Your task to perform on an android device: Go to Android settings Image 0: 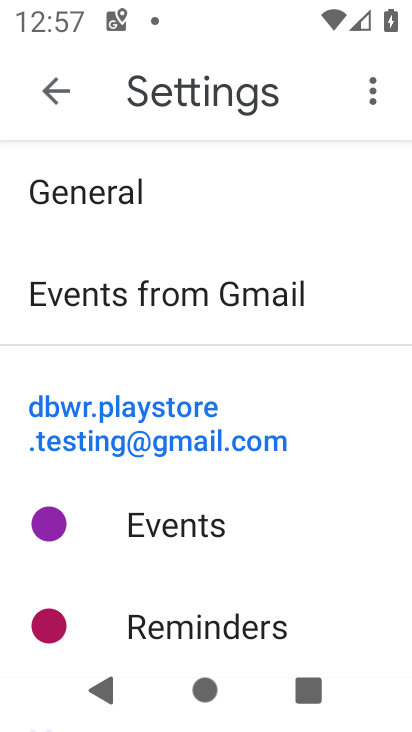
Step 0: press home button
Your task to perform on an android device: Go to Android settings Image 1: 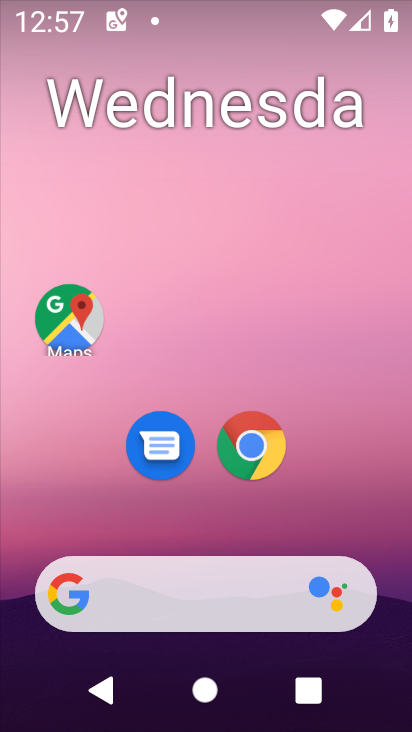
Step 1: drag from (335, 522) to (338, 0)
Your task to perform on an android device: Go to Android settings Image 2: 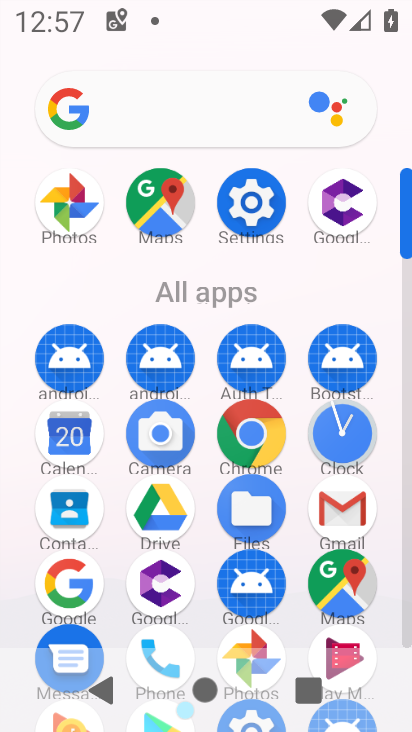
Step 2: drag from (299, 540) to (308, 54)
Your task to perform on an android device: Go to Android settings Image 3: 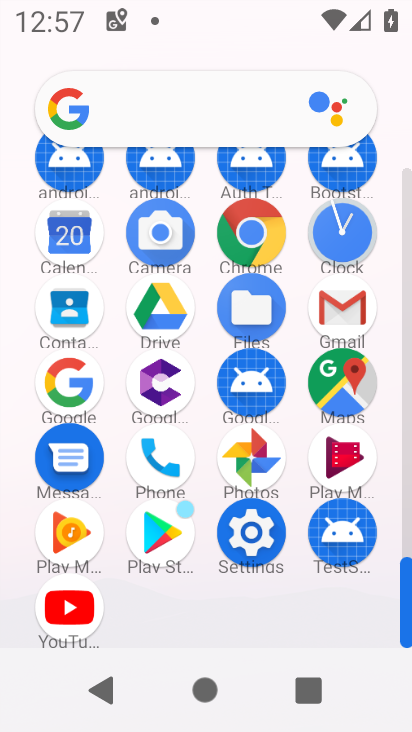
Step 3: click (256, 562)
Your task to perform on an android device: Go to Android settings Image 4: 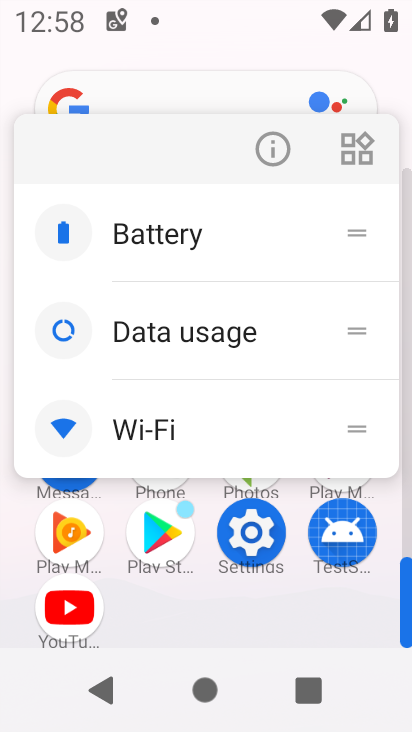
Step 4: click (256, 566)
Your task to perform on an android device: Go to Android settings Image 5: 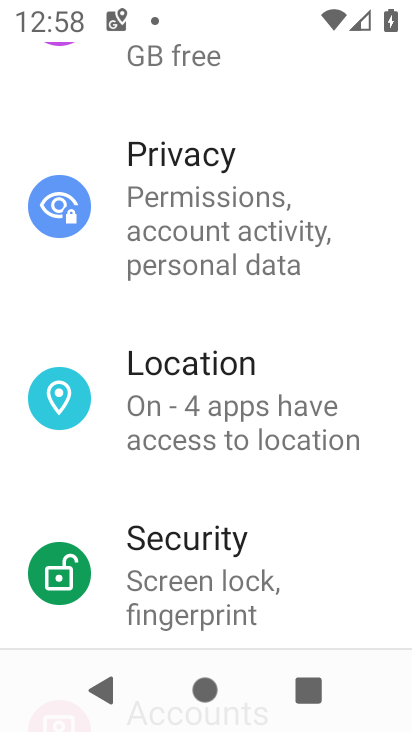
Step 5: task complete